Your task to perform on an android device: Check the weather Image 0: 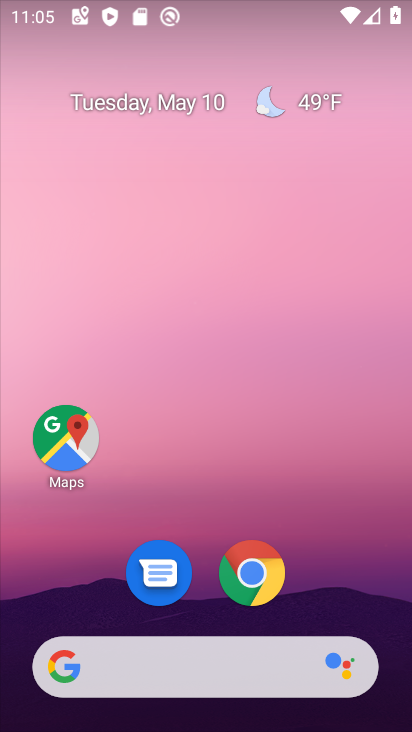
Step 0: click (264, 101)
Your task to perform on an android device: Check the weather Image 1: 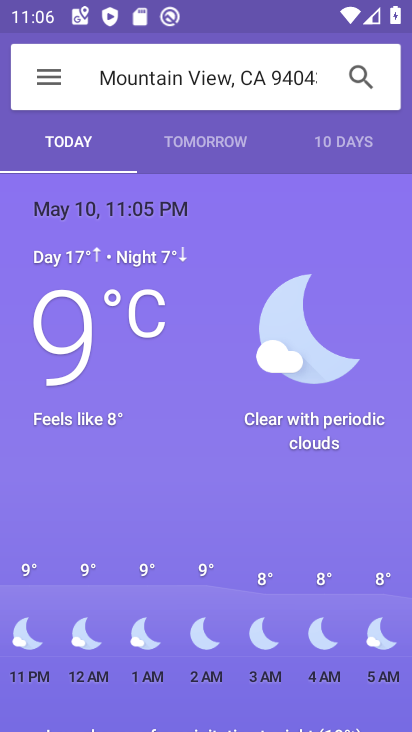
Step 1: task complete